Your task to perform on an android device: Open settings on Google Maps Image 0: 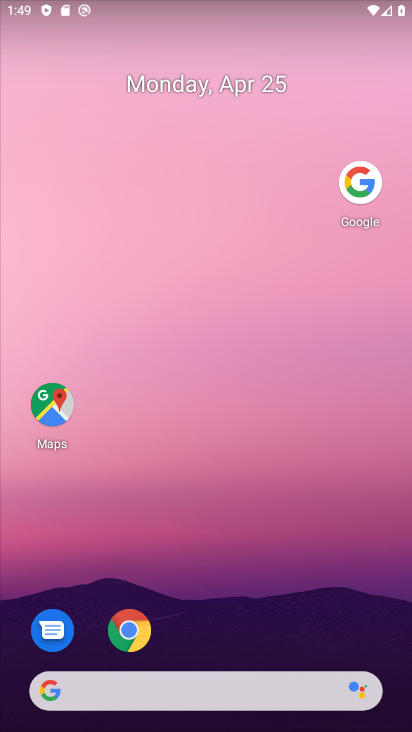
Step 0: drag from (195, 664) to (184, 32)
Your task to perform on an android device: Open settings on Google Maps Image 1: 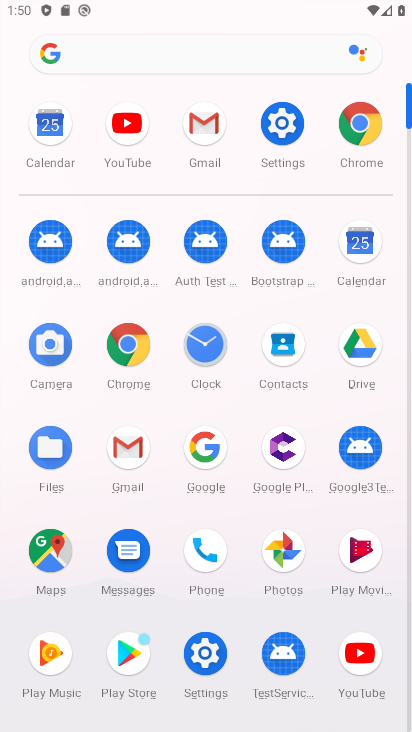
Step 1: click (59, 552)
Your task to perform on an android device: Open settings on Google Maps Image 2: 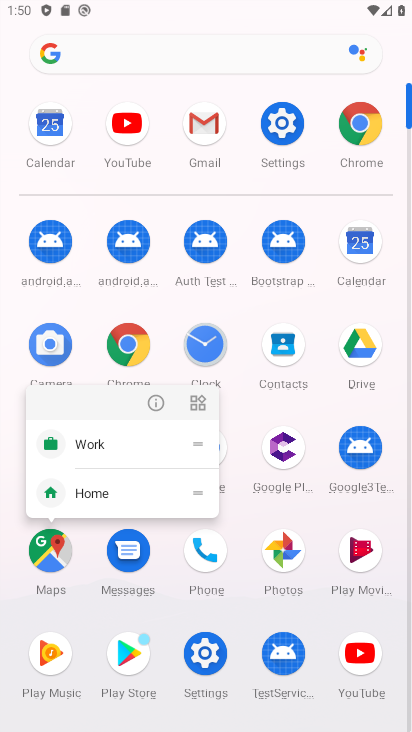
Step 2: click (52, 557)
Your task to perform on an android device: Open settings on Google Maps Image 3: 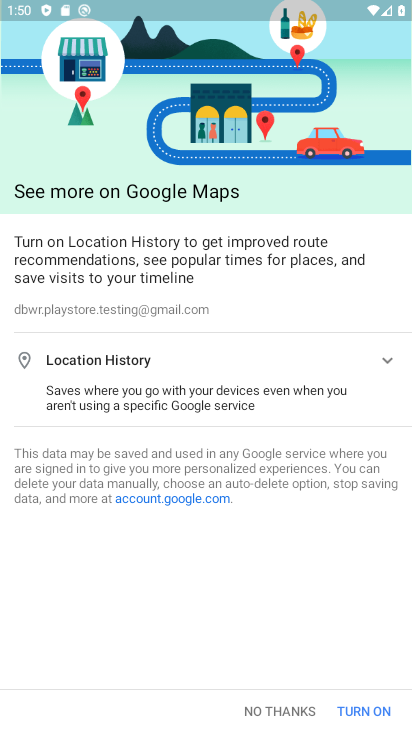
Step 3: click (346, 708)
Your task to perform on an android device: Open settings on Google Maps Image 4: 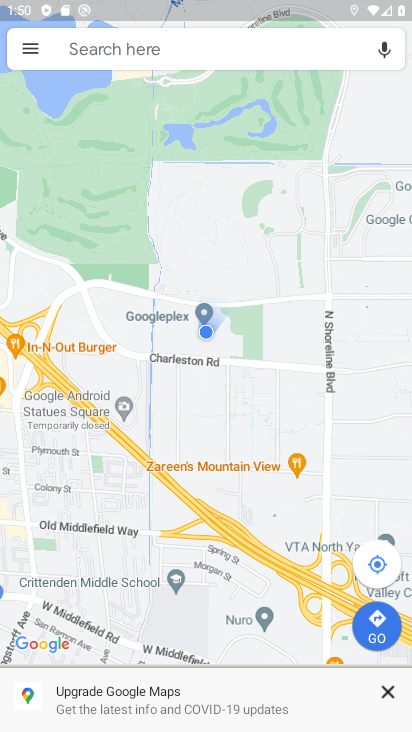
Step 4: click (22, 44)
Your task to perform on an android device: Open settings on Google Maps Image 5: 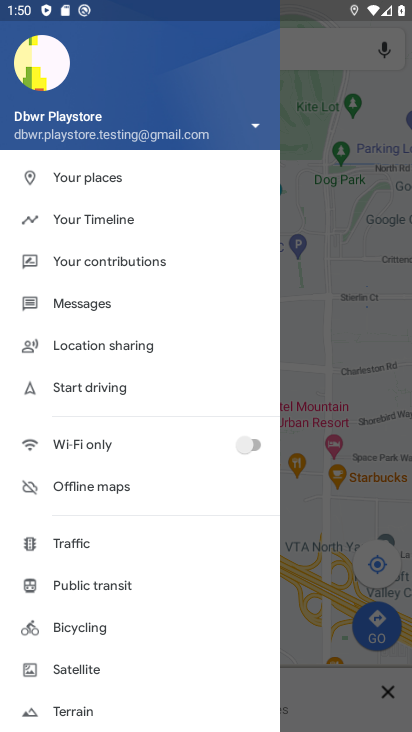
Step 5: drag from (109, 673) to (104, 177)
Your task to perform on an android device: Open settings on Google Maps Image 6: 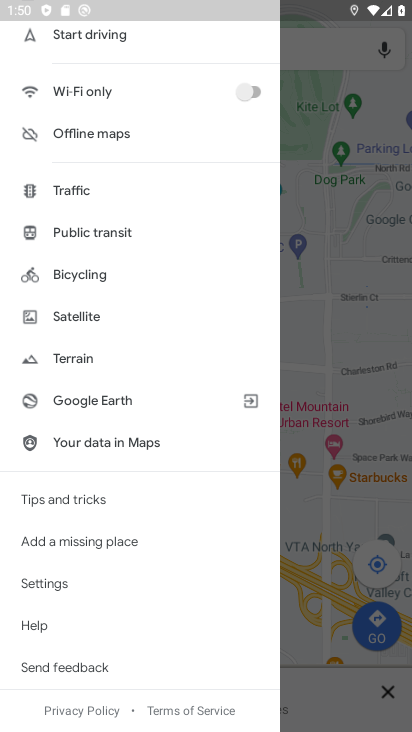
Step 6: click (52, 588)
Your task to perform on an android device: Open settings on Google Maps Image 7: 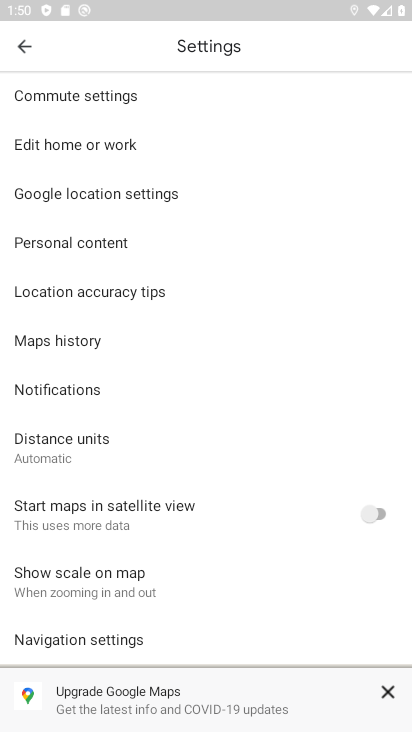
Step 7: task complete